Your task to perform on an android device: Do I have any events tomorrow? Image 0: 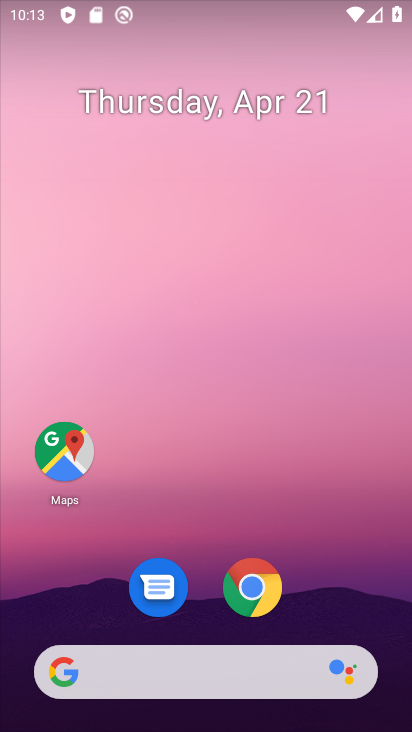
Step 0: drag from (170, 648) to (117, 117)
Your task to perform on an android device: Do I have any events tomorrow? Image 1: 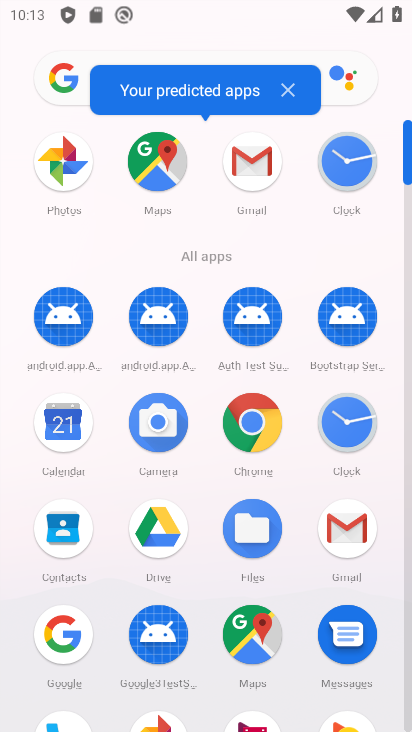
Step 1: click (65, 414)
Your task to perform on an android device: Do I have any events tomorrow? Image 2: 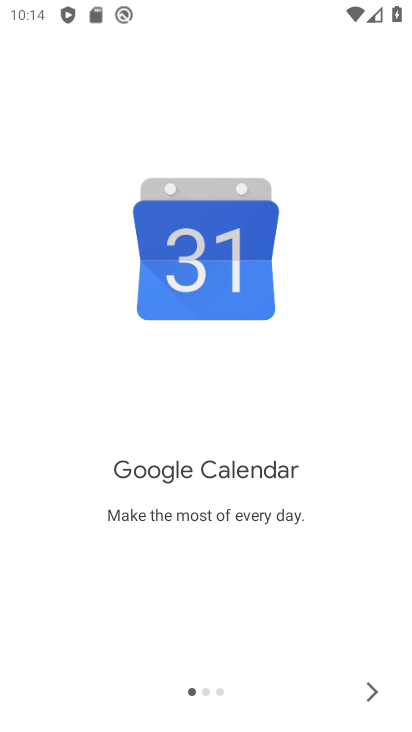
Step 2: click (368, 689)
Your task to perform on an android device: Do I have any events tomorrow? Image 3: 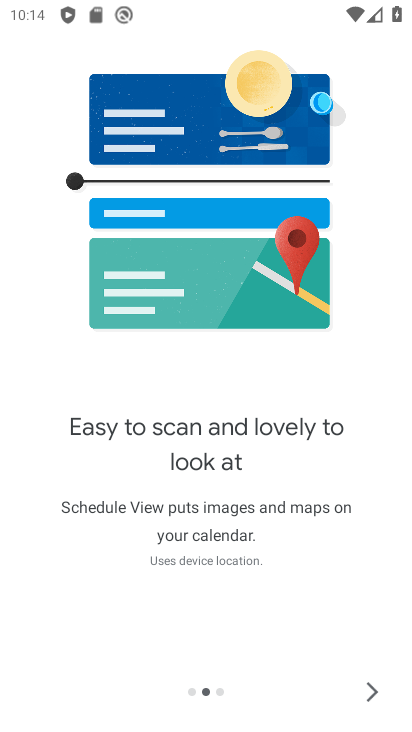
Step 3: click (368, 689)
Your task to perform on an android device: Do I have any events tomorrow? Image 4: 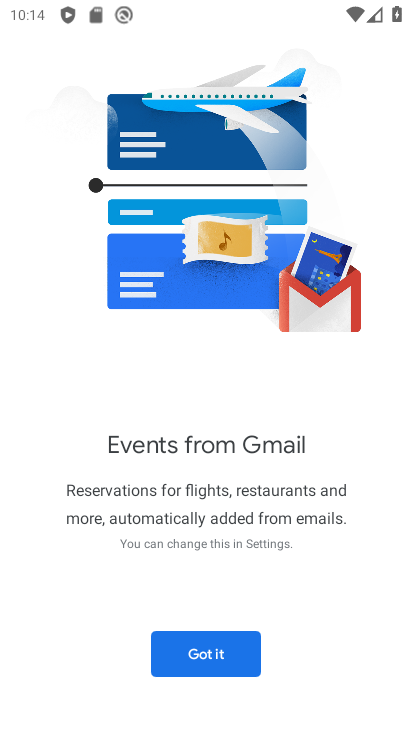
Step 4: click (255, 670)
Your task to perform on an android device: Do I have any events tomorrow? Image 5: 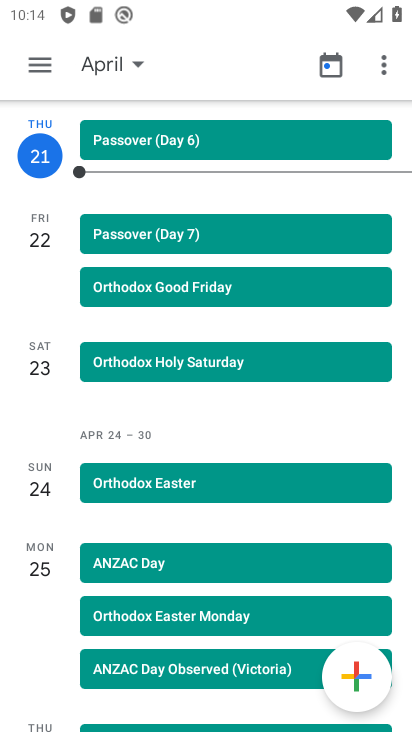
Step 5: click (44, 70)
Your task to perform on an android device: Do I have any events tomorrow? Image 6: 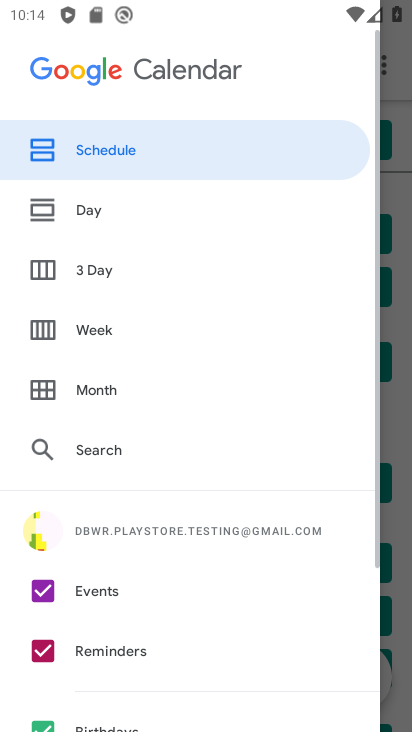
Step 6: click (137, 157)
Your task to perform on an android device: Do I have any events tomorrow? Image 7: 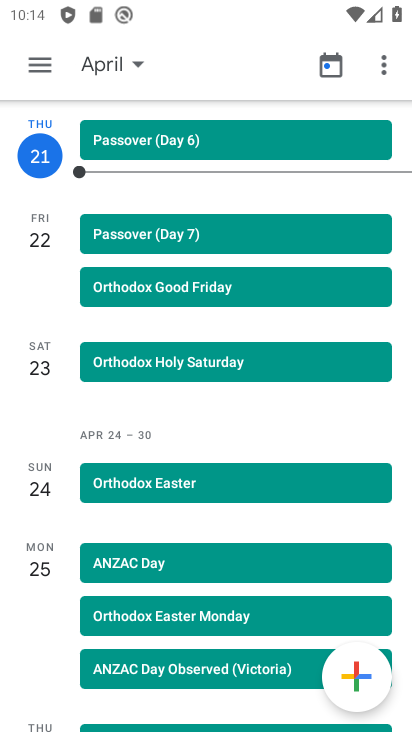
Step 7: task complete